Your task to perform on an android device: delete a single message in the gmail app Image 0: 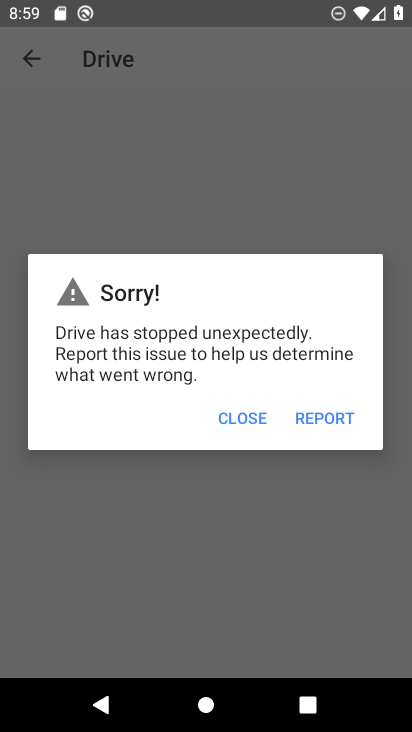
Step 0: press home button
Your task to perform on an android device: delete a single message in the gmail app Image 1: 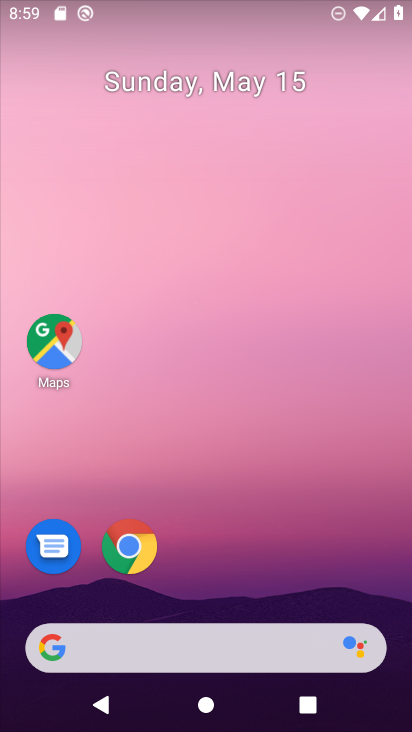
Step 1: drag from (210, 540) to (182, 75)
Your task to perform on an android device: delete a single message in the gmail app Image 2: 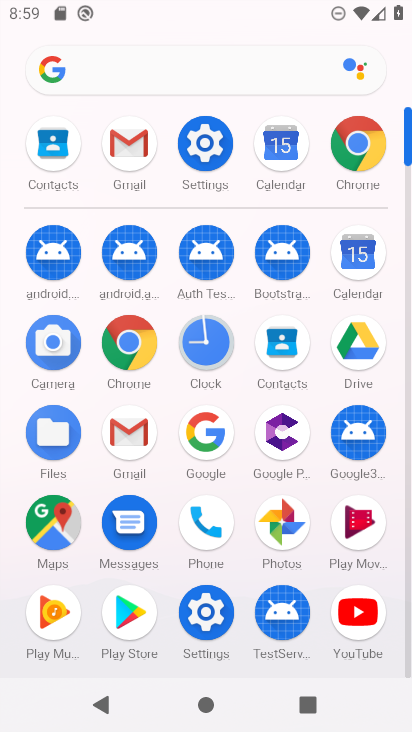
Step 2: click (119, 152)
Your task to perform on an android device: delete a single message in the gmail app Image 3: 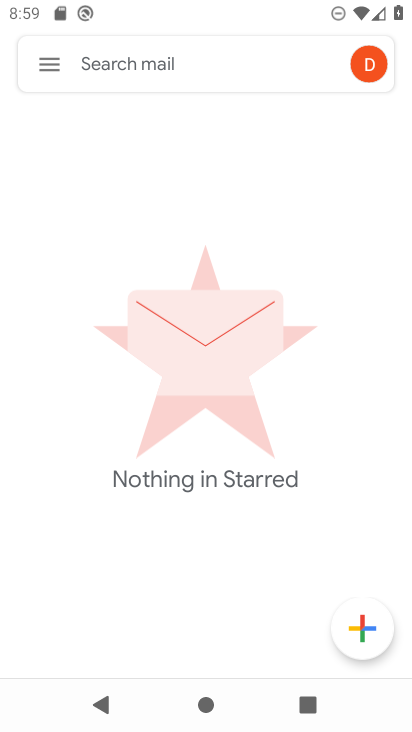
Step 3: click (50, 57)
Your task to perform on an android device: delete a single message in the gmail app Image 4: 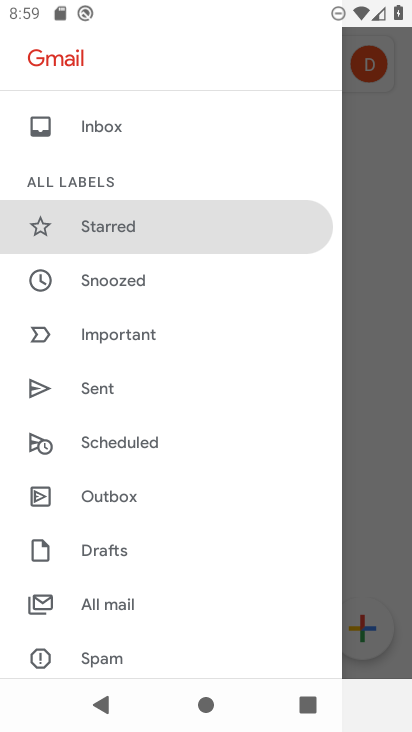
Step 4: click (150, 600)
Your task to perform on an android device: delete a single message in the gmail app Image 5: 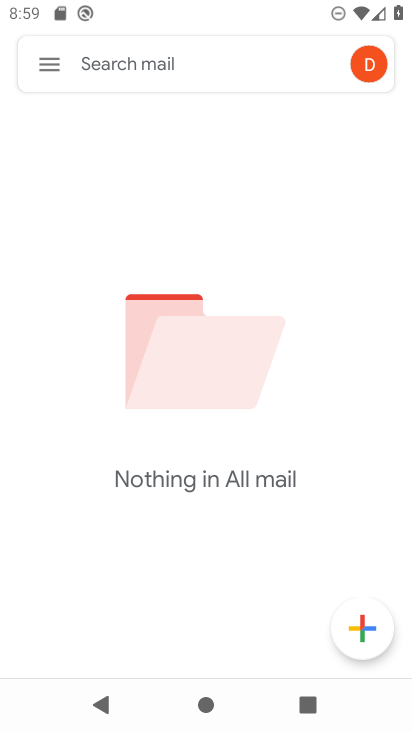
Step 5: task complete